Your task to perform on an android device: Go to Google maps Image 0: 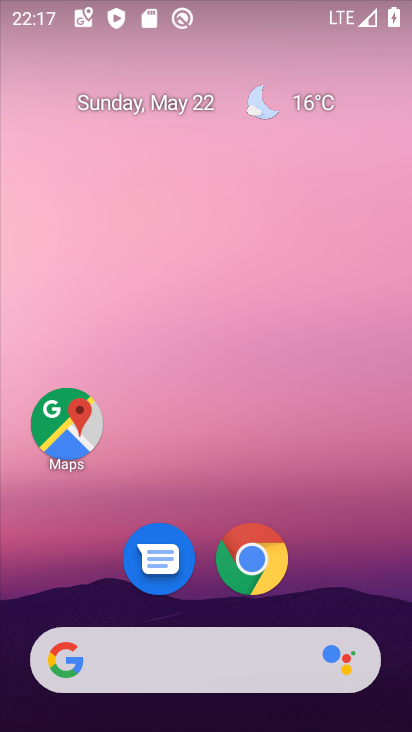
Step 0: drag from (242, 711) to (311, 163)
Your task to perform on an android device: Go to Google maps Image 1: 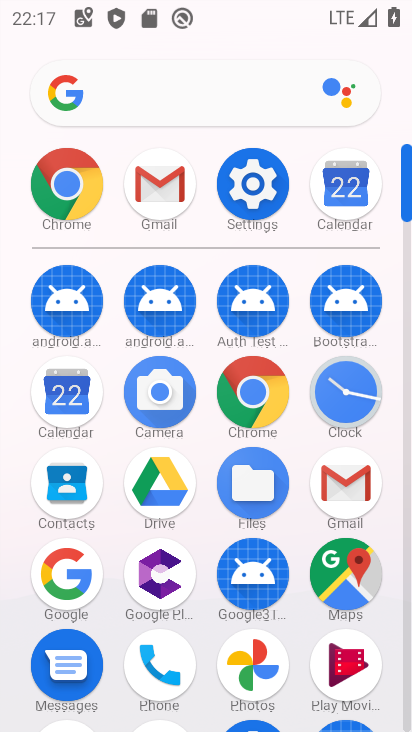
Step 1: click (354, 567)
Your task to perform on an android device: Go to Google maps Image 2: 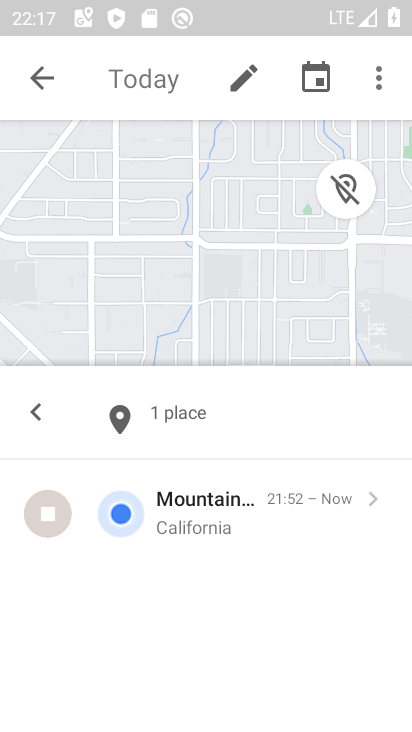
Step 2: click (38, 63)
Your task to perform on an android device: Go to Google maps Image 3: 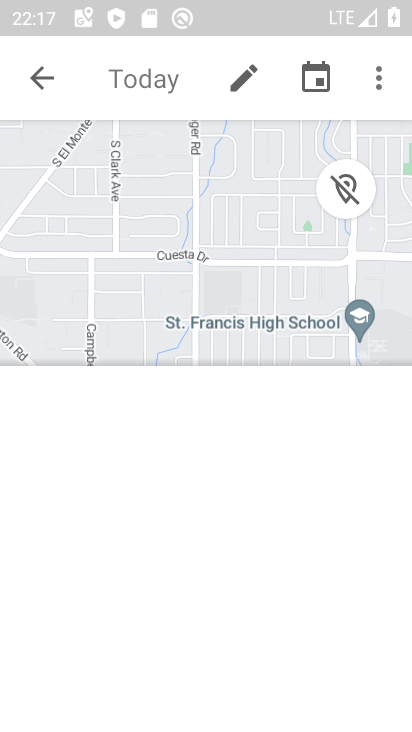
Step 3: click (38, 84)
Your task to perform on an android device: Go to Google maps Image 4: 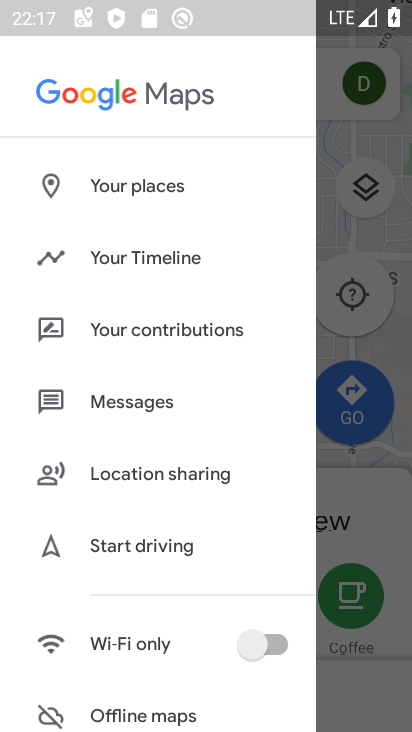
Step 4: click (351, 290)
Your task to perform on an android device: Go to Google maps Image 5: 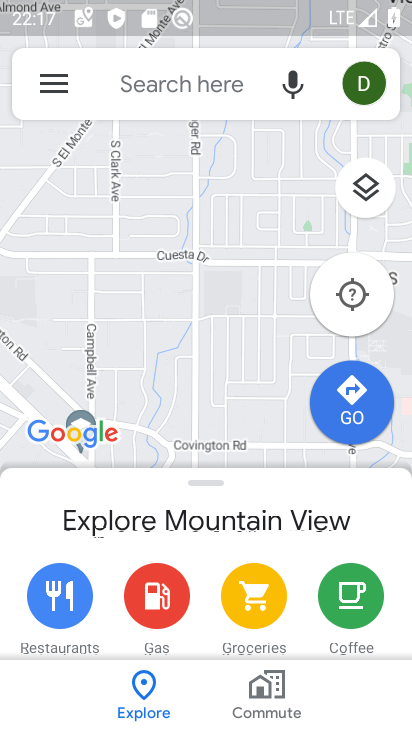
Step 5: click (349, 296)
Your task to perform on an android device: Go to Google maps Image 6: 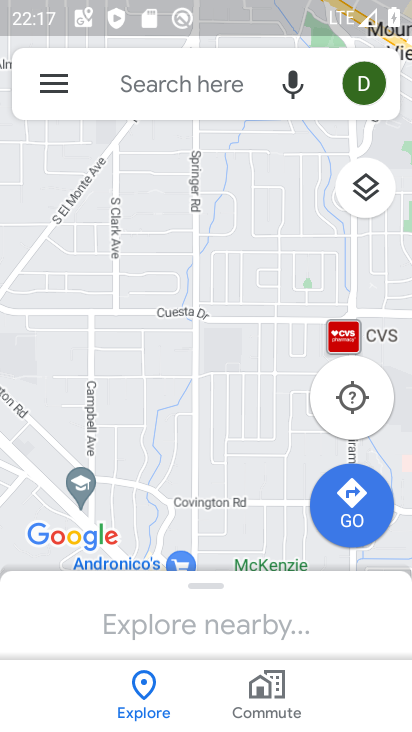
Step 6: task complete